Your task to perform on an android device: Open Amazon Image 0: 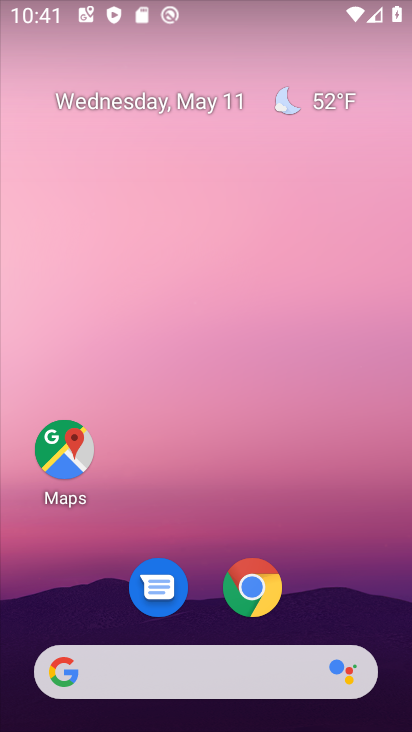
Step 0: drag from (272, 681) to (297, 247)
Your task to perform on an android device: Open Amazon Image 1: 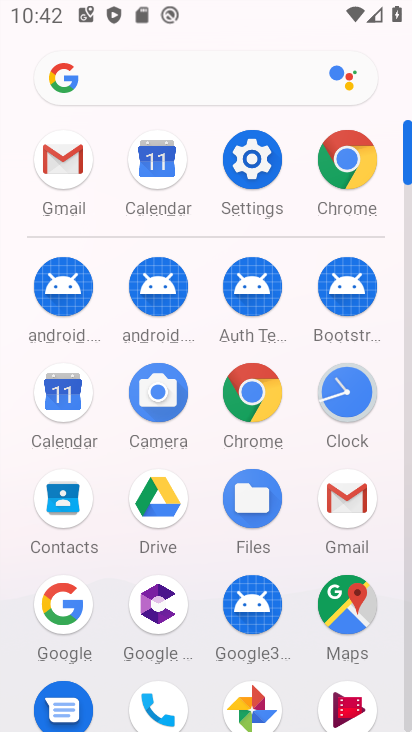
Step 1: click (340, 179)
Your task to perform on an android device: Open Amazon Image 2: 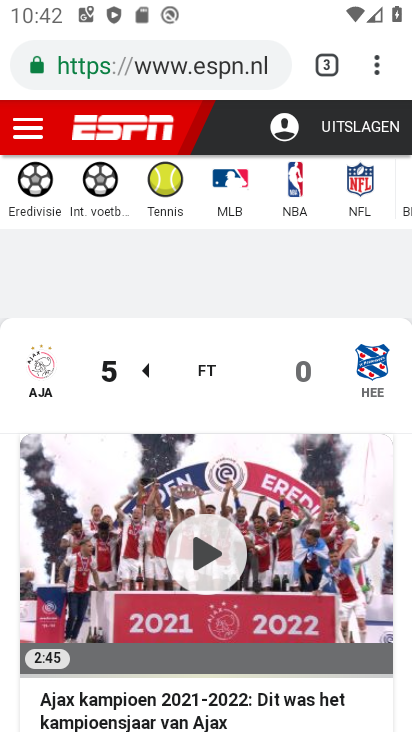
Step 2: click (311, 47)
Your task to perform on an android device: Open Amazon Image 3: 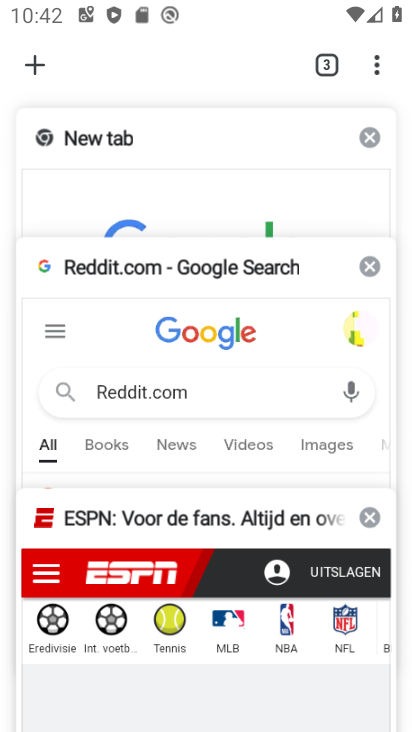
Step 3: click (44, 73)
Your task to perform on an android device: Open Amazon Image 4: 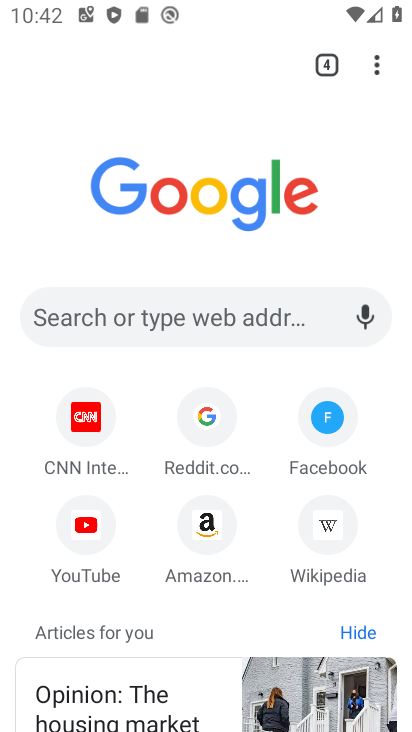
Step 4: click (198, 527)
Your task to perform on an android device: Open Amazon Image 5: 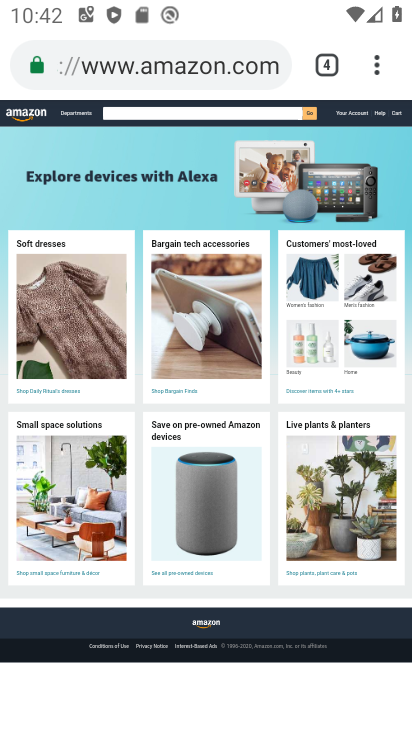
Step 5: task complete